Your task to perform on an android device: allow notifications from all sites in the chrome app Image 0: 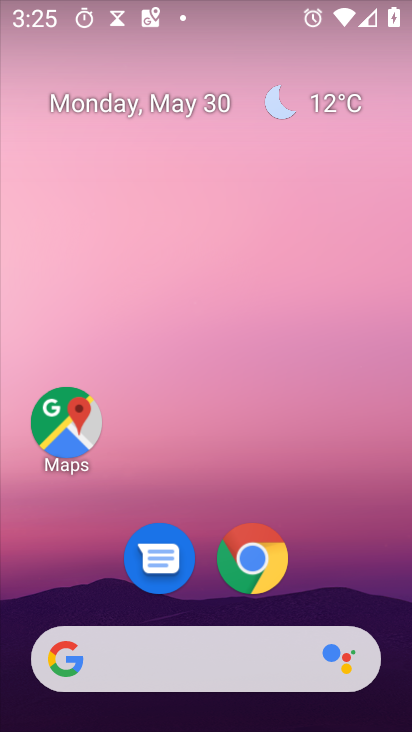
Step 0: click (240, 556)
Your task to perform on an android device: allow notifications from all sites in the chrome app Image 1: 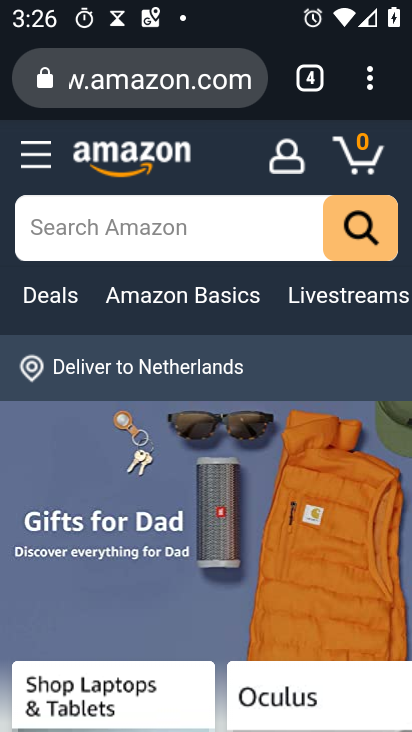
Step 1: drag from (368, 70) to (106, 597)
Your task to perform on an android device: allow notifications from all sites in the chrome app Image 2: 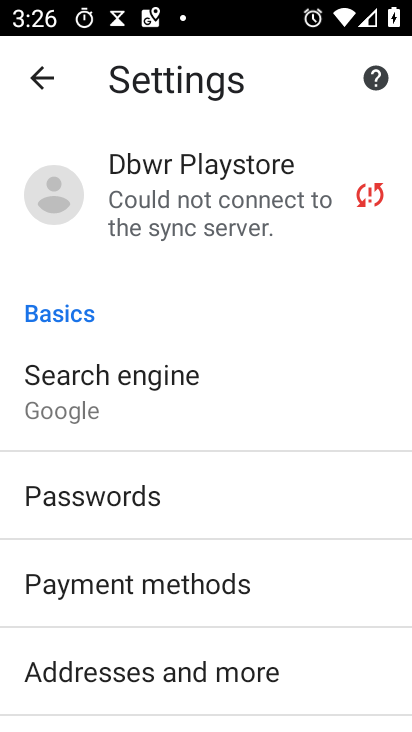
Step 2: drag from (164, 620) to (257, 133)
Your task to perform on an android device: allow notifications from all sites in the chrome app Image 3: 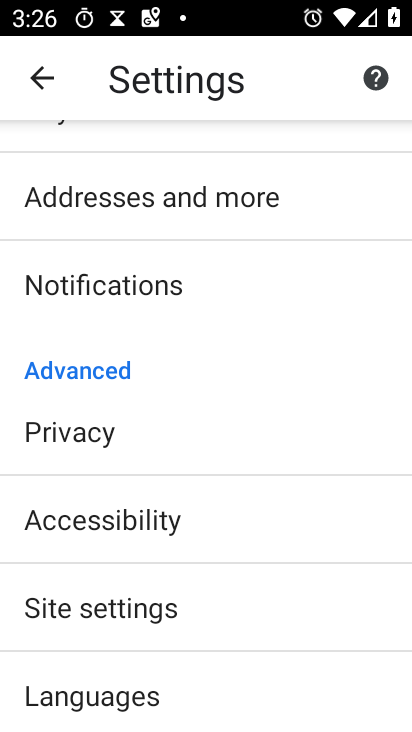
Step 3: click (144, 291)
Your task to perform on an android device: allow notifications from all sites in the chrome app Image 4: 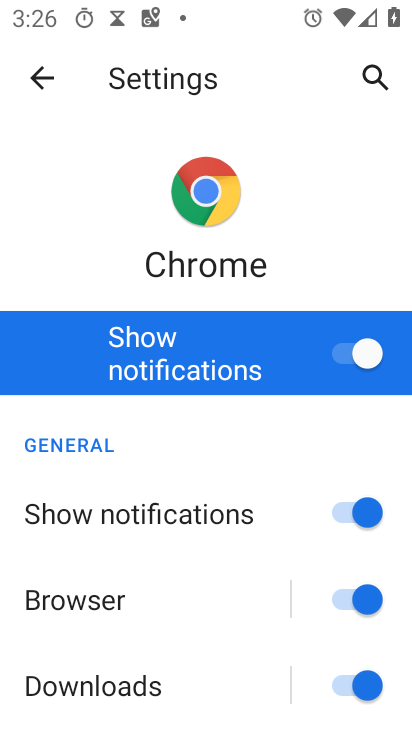
Step 4: task complete